Your task to perform on an android device: Open Google Maps Image 0: 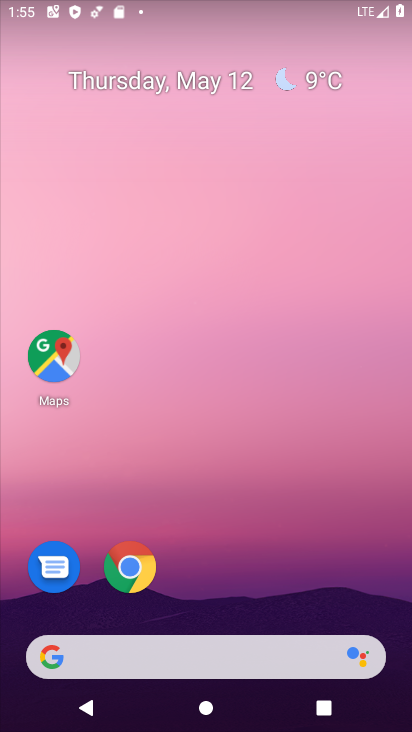
Step 0: click (219, 161)
Your task to perform on an android device: Open Google Maps Image 1: 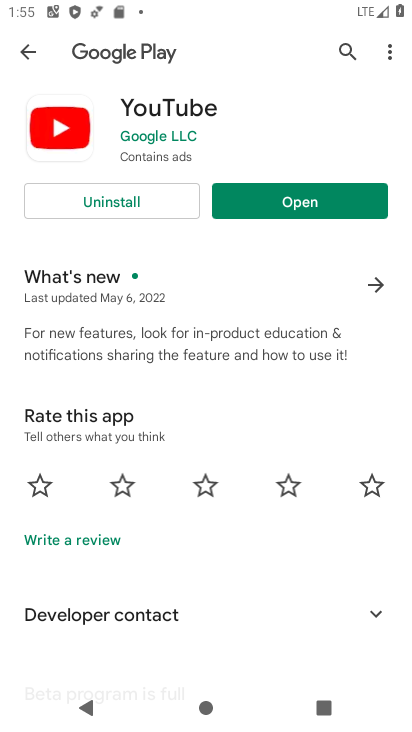
Step 1: press home button
Your task to perform on an android device: Open Google Maps Image 2: 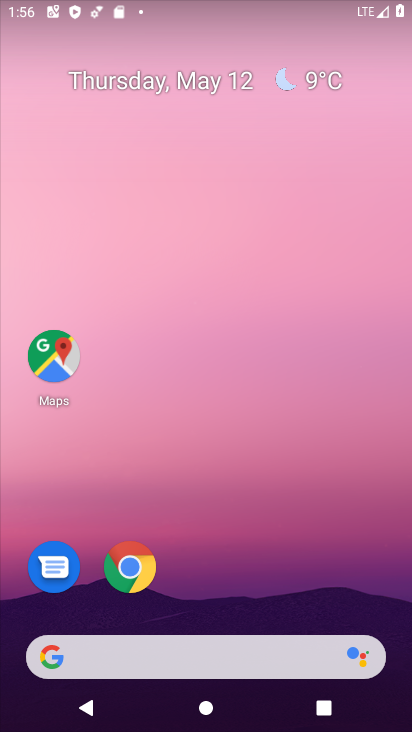
Step 2: click (131, 568)
Your task to perform on an android device: Open Google Maps Image 3: 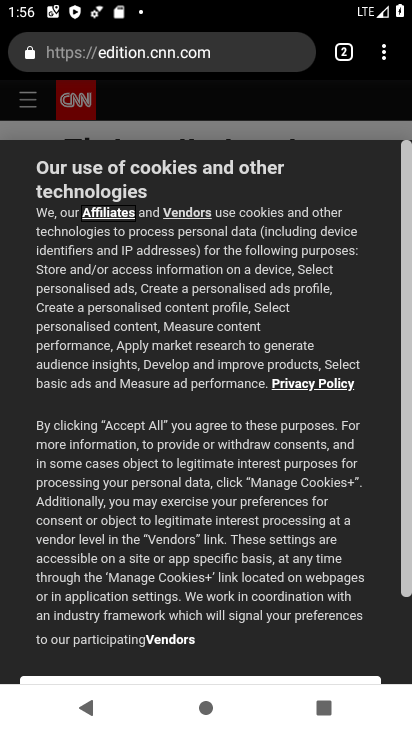
Step 3: press home button
Your task to perform on an android device: Open Google Maps Image 4: 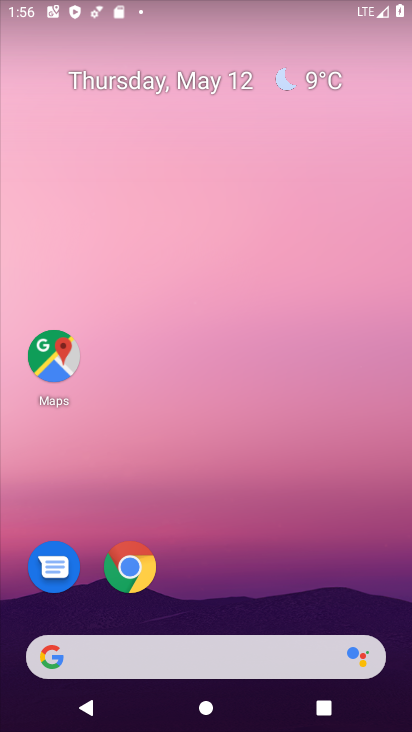
Step 4: click (49, 376)
Your task to perform on an android device: Open Google Maps Image 5: 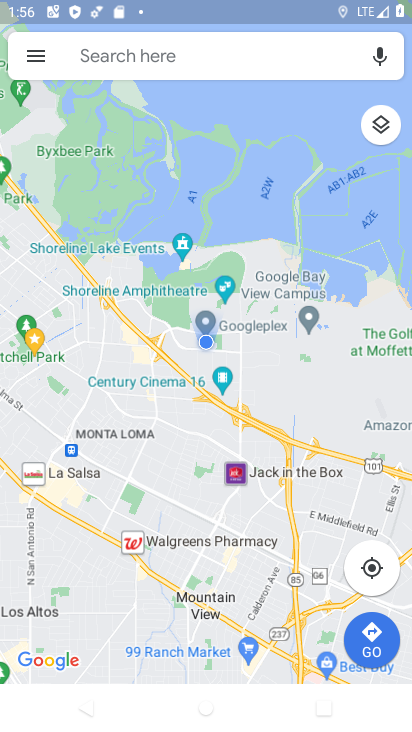
Step 5: task complete